Your task to perform on an android device: Go to privacy settings Image 0: 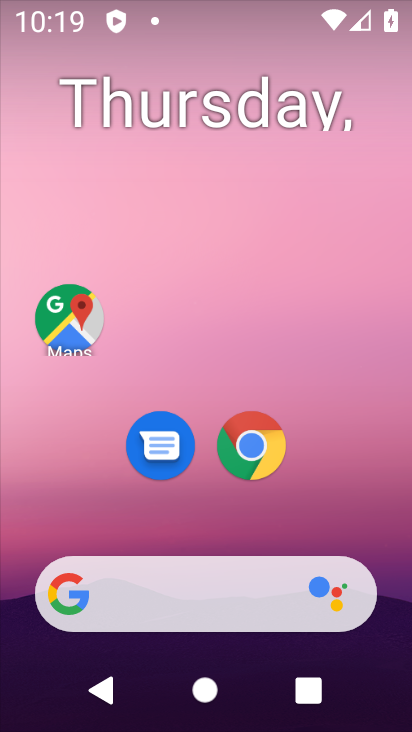
Step 0: drag from (235, 719) to (235, 106)
Your task to perform on an android device: Go to privacy settings Image 1: 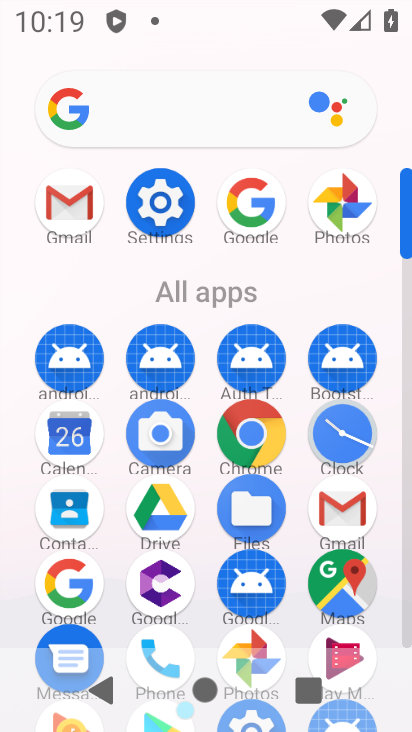
Step 1: click (168, 199)
Your task to perform on an android device: Go to privacy settings Image 2: 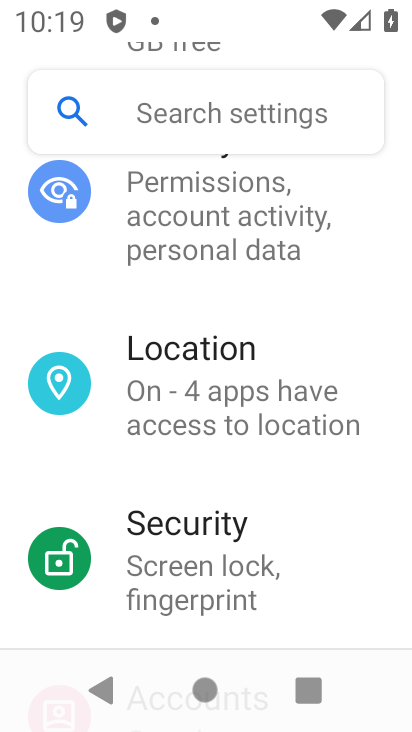
Step 2: drag from (328, 196) to (314, 515)
Your task to perform on an android device: Go to privacy settings Image 3: 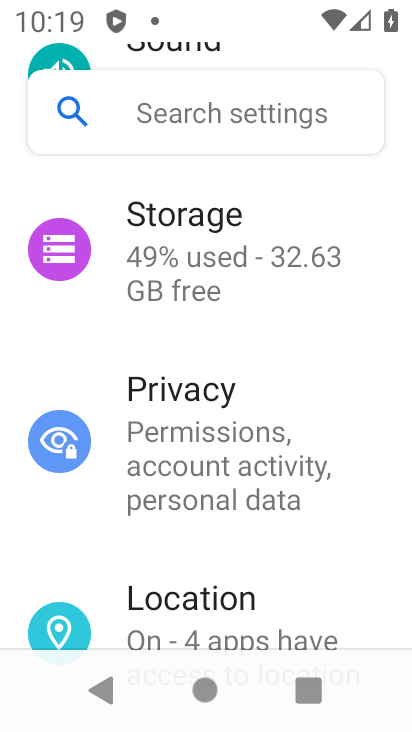
Step 3: click (215, 425)
Your task to perform on an android device: Go to privacy settings Image 4: 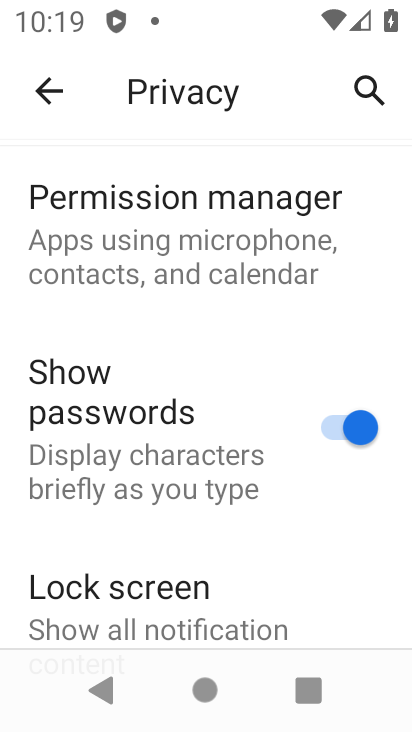
Step 4: task complete